Your task to perform on an android device: What is the news today? Image 0: 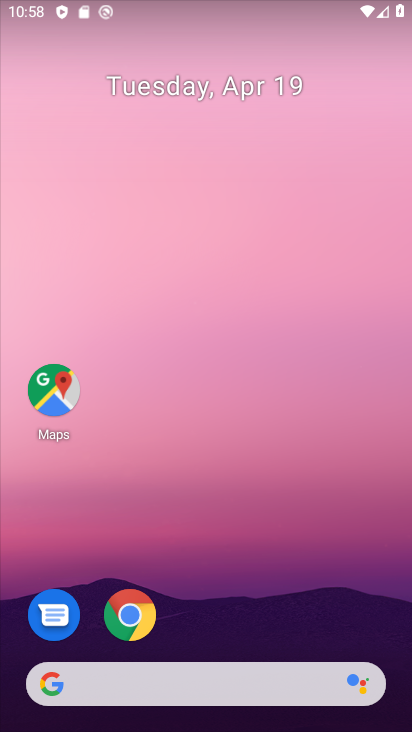
Step 0: drag from (168, 589) to (205, 302)
Your task to perform on an android device: What is the news today? Image 1: 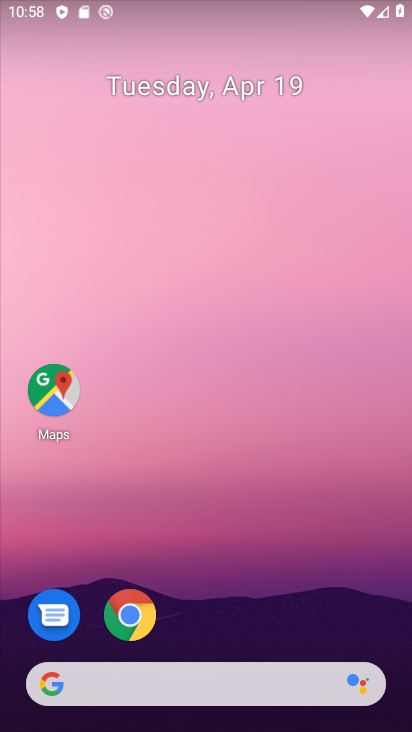
Step 1: drag from (214, 653) to (248, 247)
Your task to perform on an android device: What is the news today? Image 2: 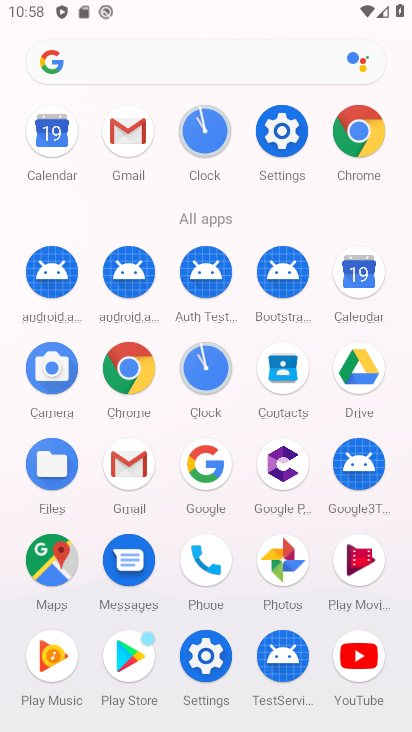
Step 2: click (206, 464)
Your task to perform on an android device: What is the news today? Image 3: 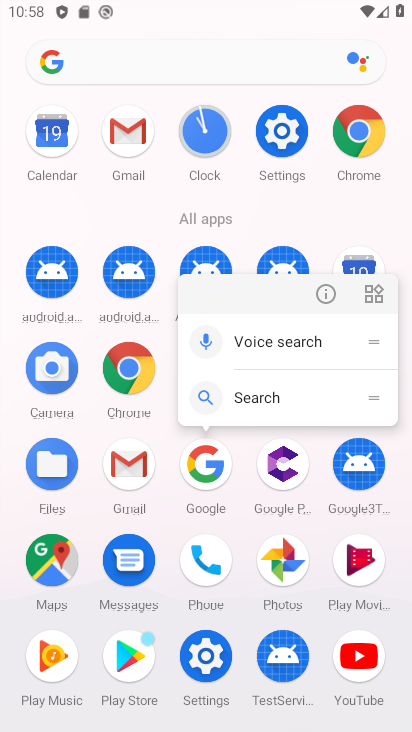
Step 3: click (204, 472)
Your task to perform on an android device: What is the news today? Image 4: 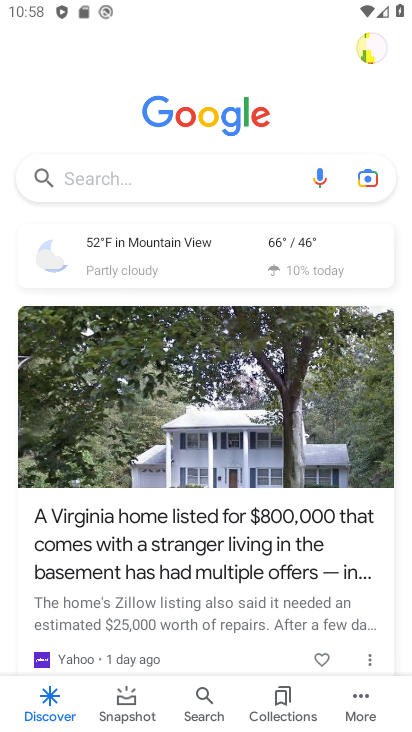
Step 4: drag from (139, 421) to (136, 360)
Your task to perform on an android device: What is the news today? Image 5: 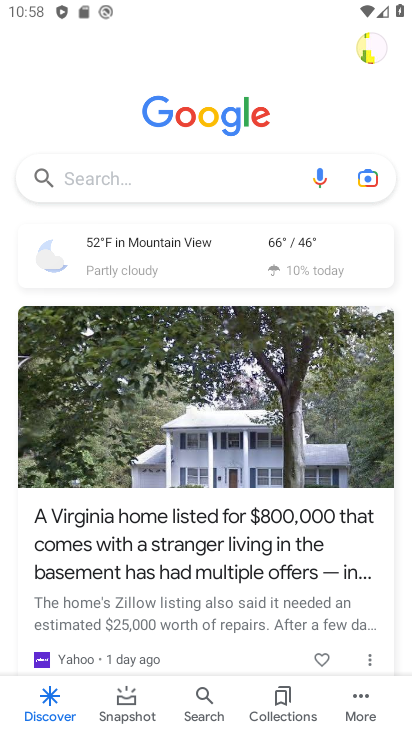
Step 5: click (201, 169)
Your task to perform on an android device: What is the news today? Image 6: 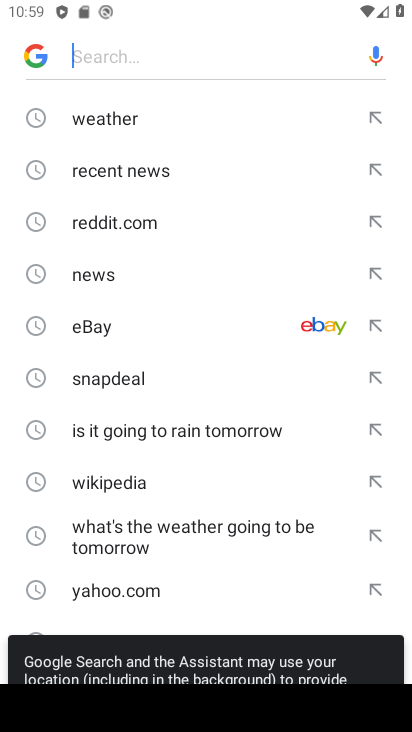
Step 6: click (86, 273)
Your task to perform on an android device: What is the news today? Image 7: 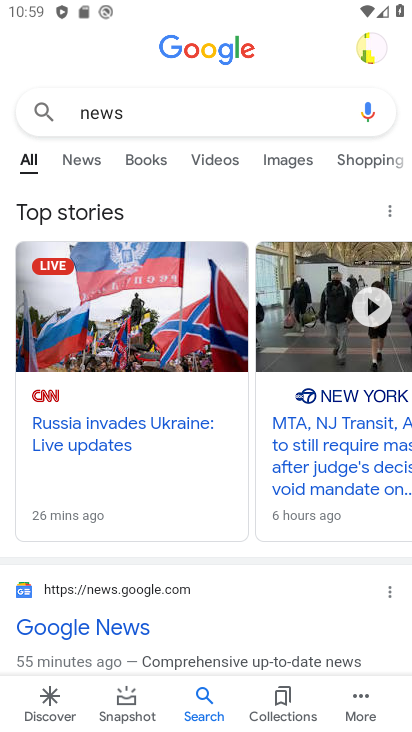
Step 7: drag from (231, 547) to (212, 361)
Your task to perform on an android device: What is the news today? Image 8: 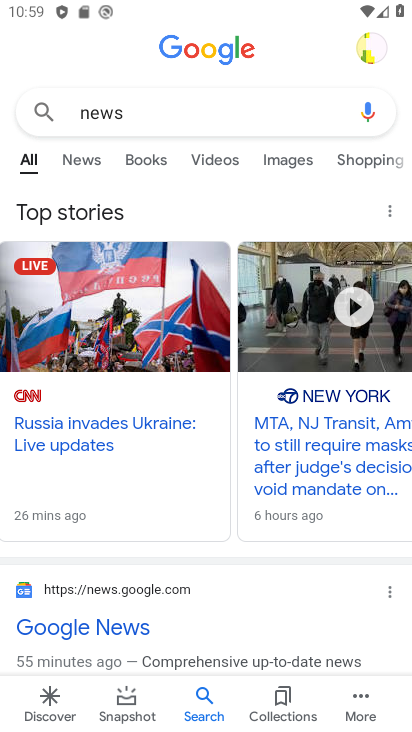
Step 8: drag from (85, 641) to (117, 341)
Your task to perform on an android device: What is the news today? Image 9: 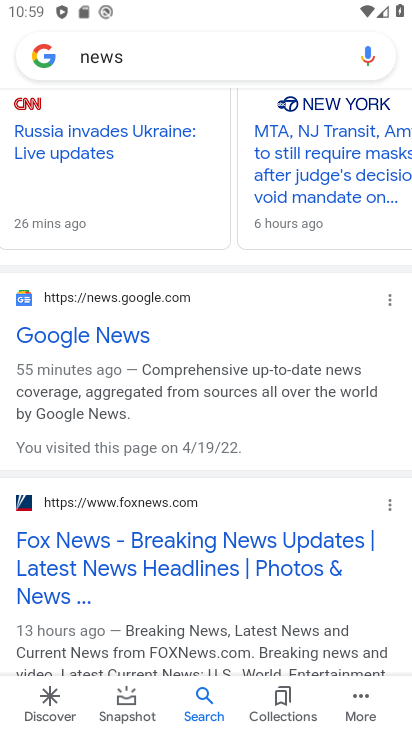
Step 9: click (122, 337)
Your task to perform on an android device: What is the news today? Image 10: 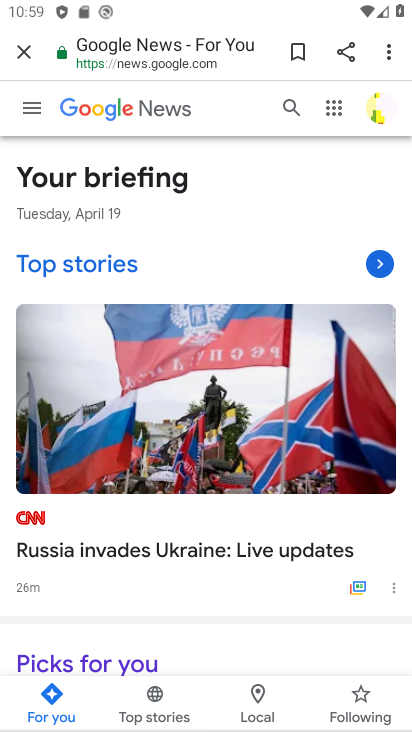
Step 10: task complete